Your task to perform on an android device: Go to privacy settings Image 0: 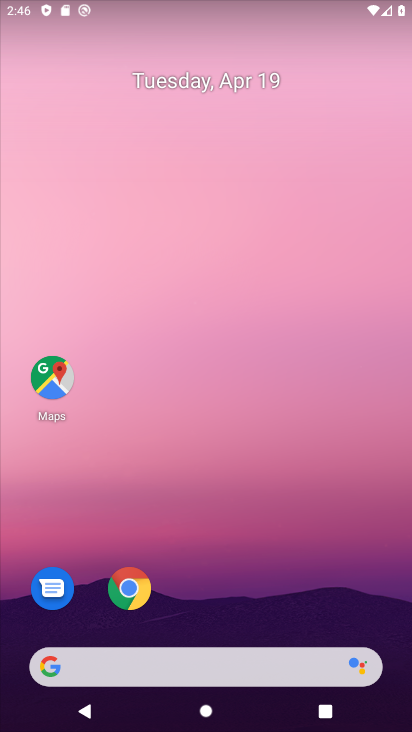
Step 0: drag from (300, 689) to (297, 175)
Your task to perform on an android device: Go to privacy settings Image 1: 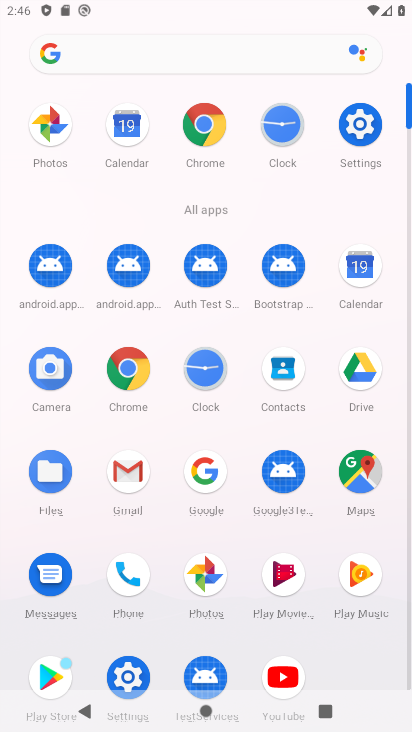
Step 1: click (360, 129)
Your task to perform on an android device: Go to privacy settings Image 2: 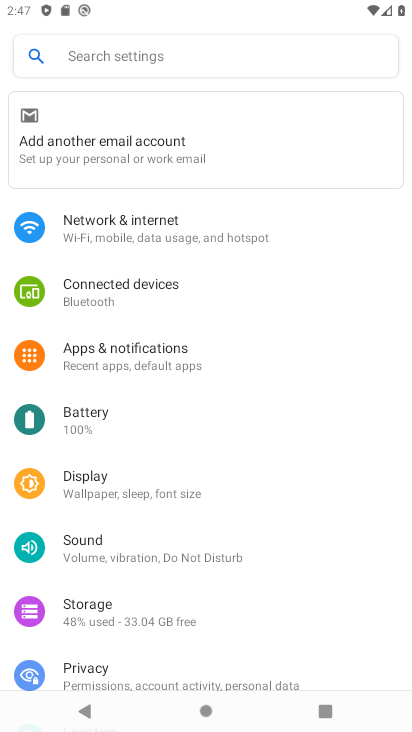
Step 2: click (91, 678)
Your task to perform on an android device: Go to privacy settings Image 3: 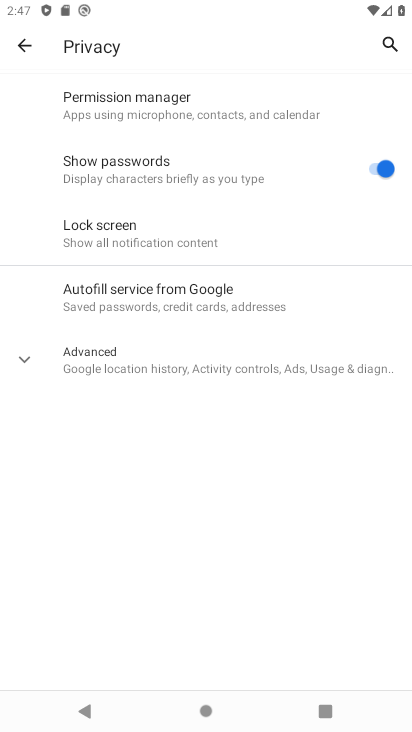
Step 3: click (67, 358)
Your task to perform on an android device: Go to privacy settings Image 4: 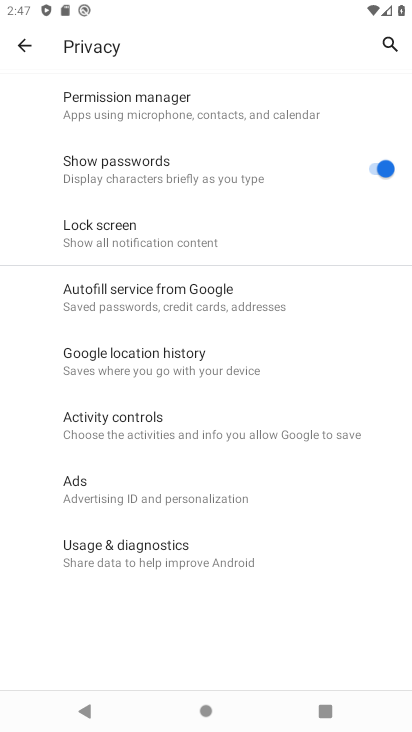
Step 4: task complete